Your task to perform on an android device: Go to Wikipedia Image 0: 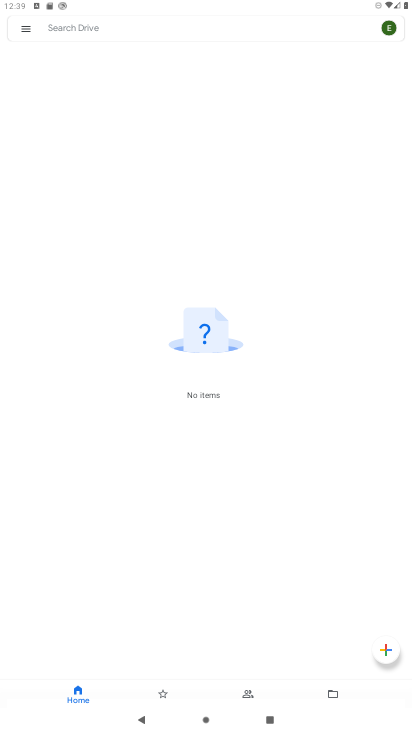
Step 0: press home button
Your task to perform on an android device: Go to Wikipedia Image 1: 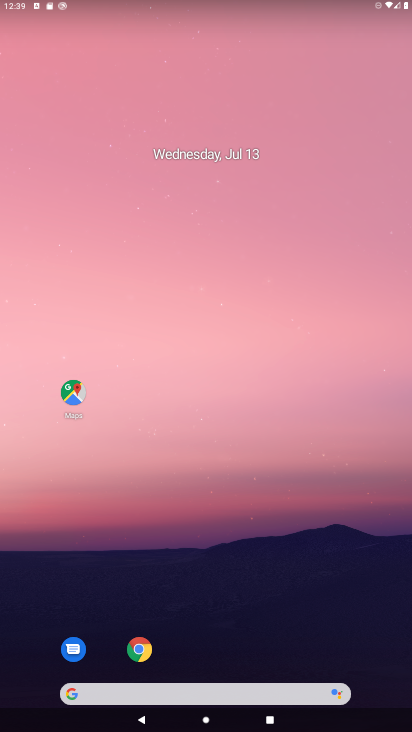
Step 1: click (139, 652)
Your task to perform on an android device: Go to Wikipedia Image 2: 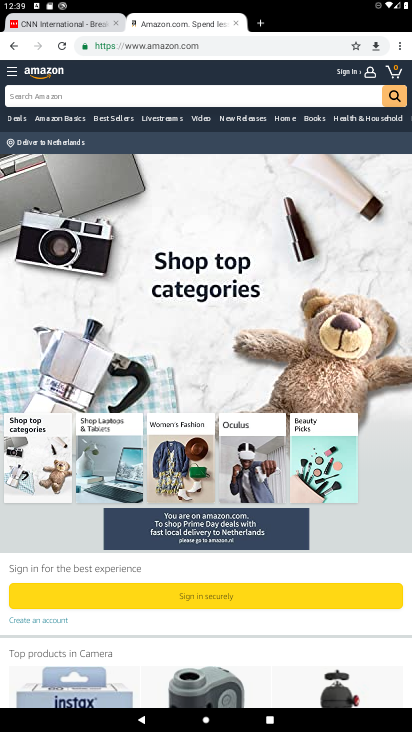
Step 2: click (196, 45)
Your task to perform on an android device: Go to Wikipedia Image 3: 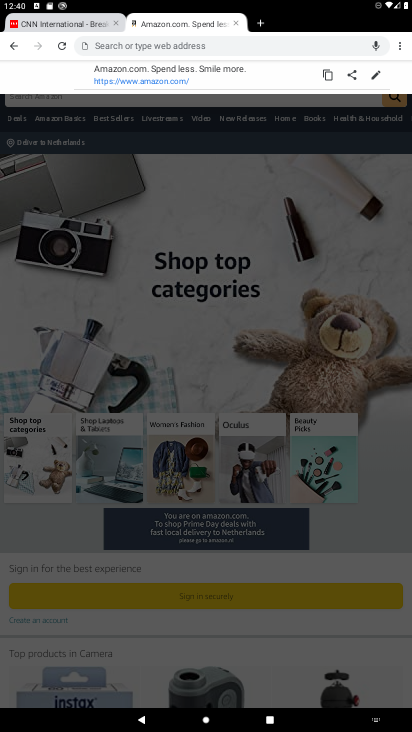
Step 3: type "Wikipedia"
Your task to perform on an android device: Go to Wikipedia Image 4: 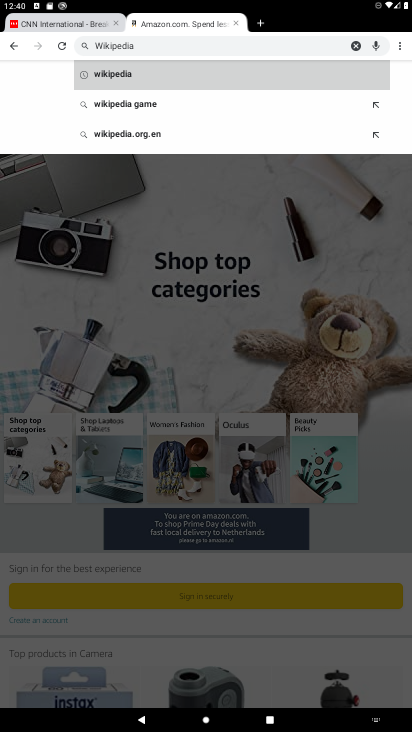
Step 4: click (118, 67)
Your task to perform on an android device: Go to Wikipedia Image 5: 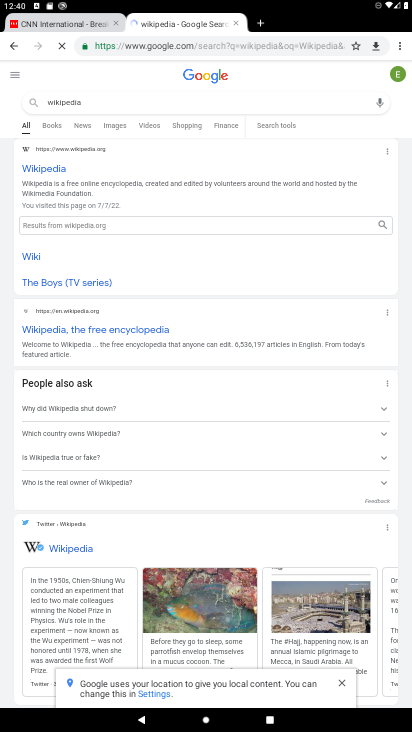
Step 5: click (45, 174)
Your task to perform on an android device: Go to Wikipedia Image 6: 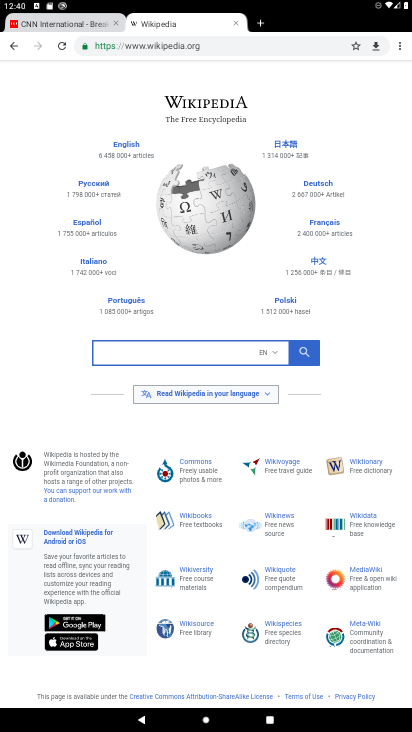
Step 6: task complete